Your task to perform on an android device: turn on notifications settings in the gmail app Image 0: 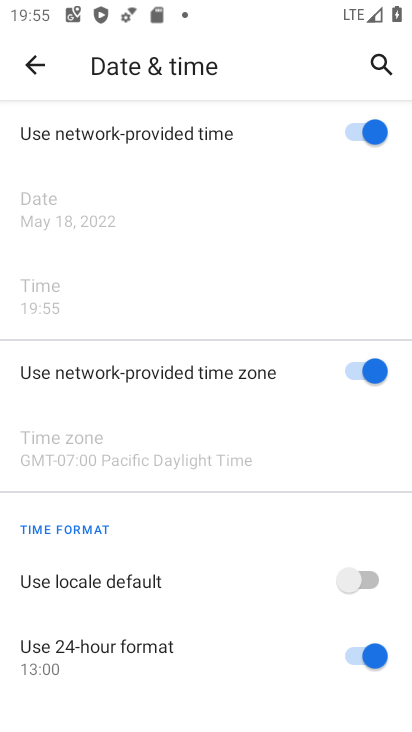
Step 0: press home button
Your task to perform on an android device: turn on notifications settings in the gmail app Image 1: 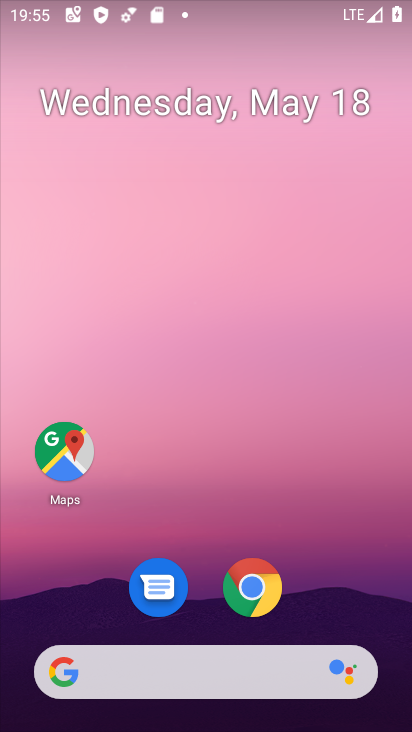
Step 1: drag from (203, 614) to (185, 85)
Your task to perform on an android device: turn on notifications settings in the gmail app Image 2: 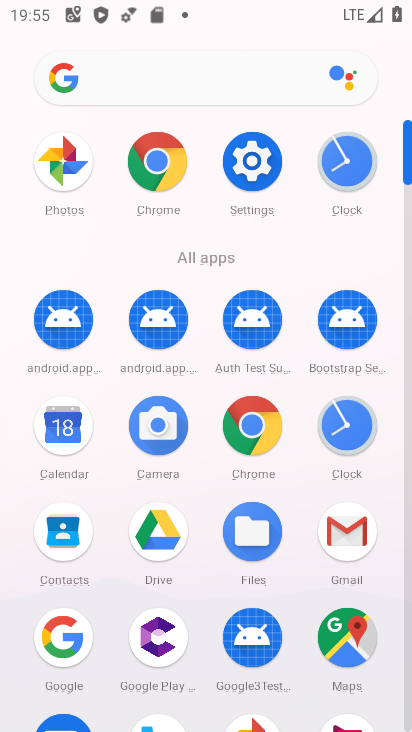
Step 2: click (334, 523)
Your task to perform on an android device: turn on notifications settings in the gmail app Image 3: 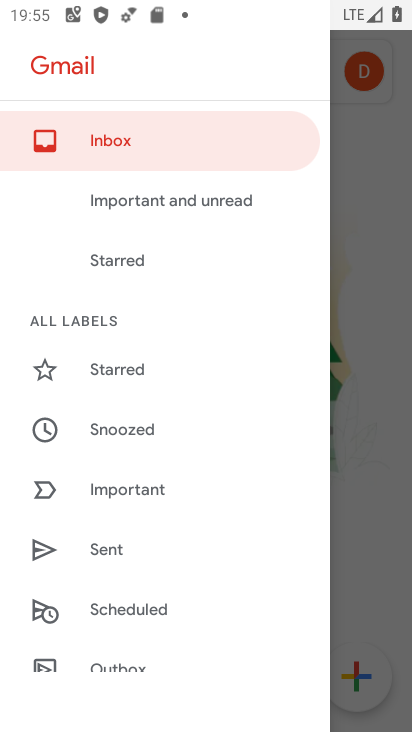
Step 3: drag from (128, 645) to (107, 105)
Your task to perform on an android device: turn on notifications settings in the gmail app Image 4: 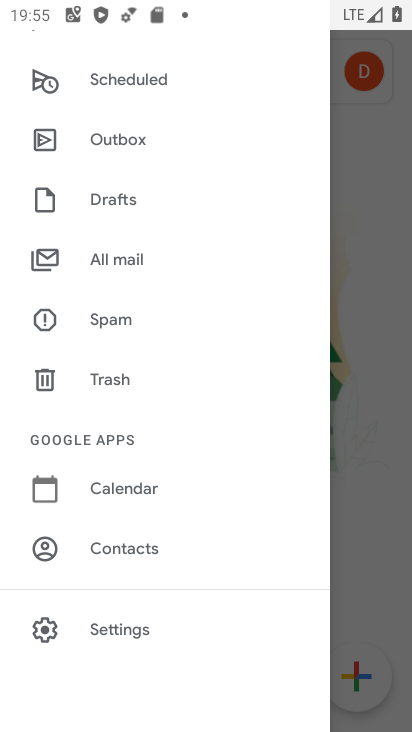
Step 4: click (95, 632)
Your task to perform on an android device: turn on notifications settings in the gmail app Image 5: 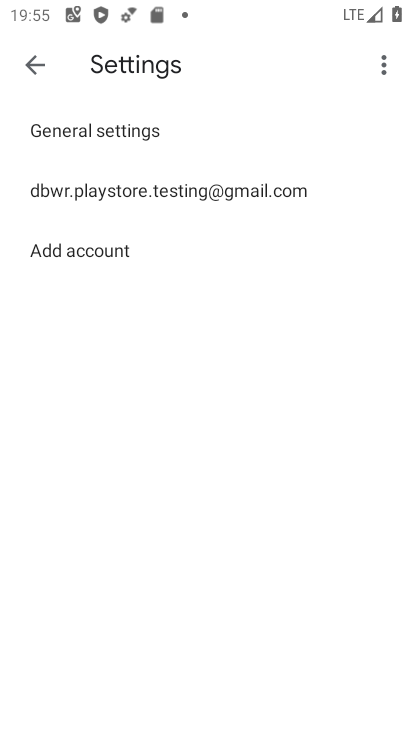
Step 5: click (117, 183)
Your task to perform on an android device: turn on notifications settings in the gmail app Image 6: 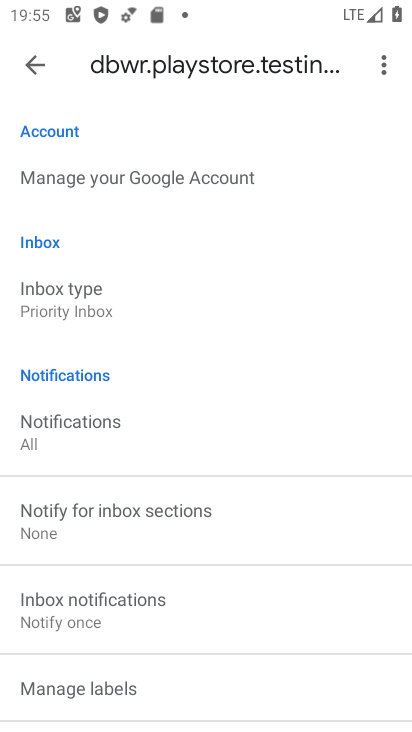
Step 6: click (45, 425)
Your task to perform on an android device: turn on notifications settings in the gmail app Image 7: 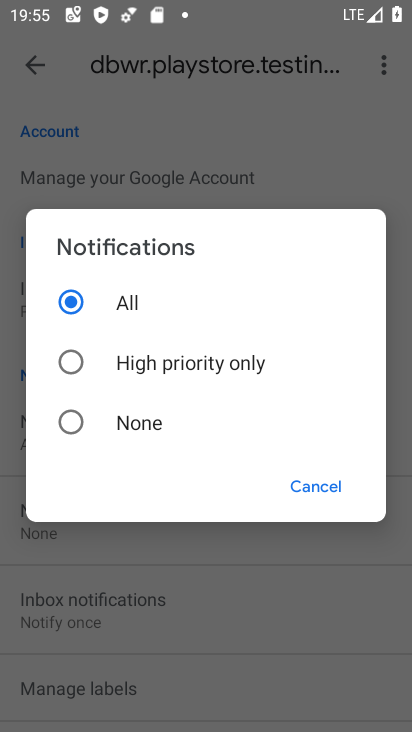
Step 7: task complete